Your task to perform on an android device: What's the weather? Image 0: 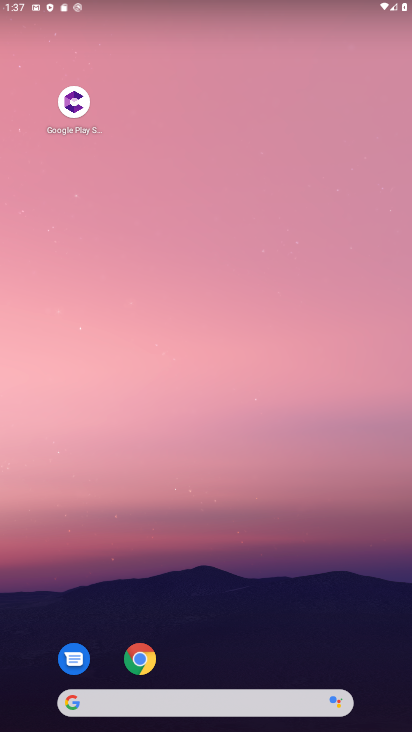
Step 0: click (167, 708)
Your task to perform on an android device: What's the weather? Image 1: 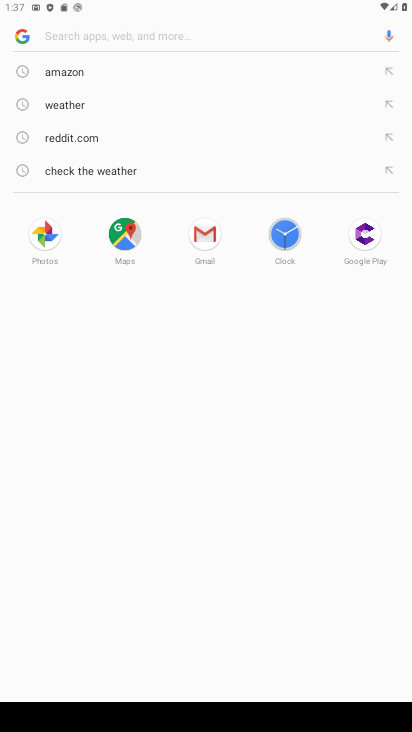
Step 1: click (88, 106)
Your task to perform on an android device: What's the weather? Image 2: 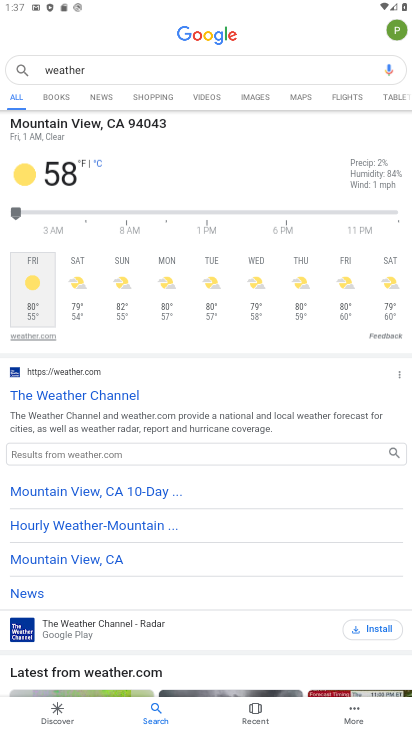
Step 2: task complete